Your task to perform on an android device: What's the weather going to be this weekend? Image 0: 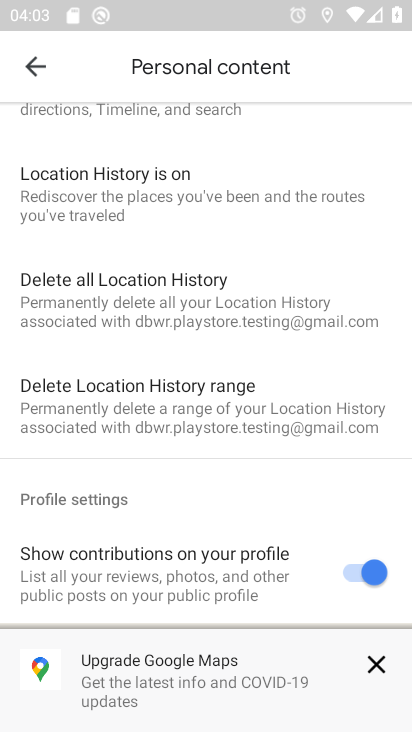
Step 0: press home button
Your task to perform on an android device: What's the weather going to be this weekend? Image 1: 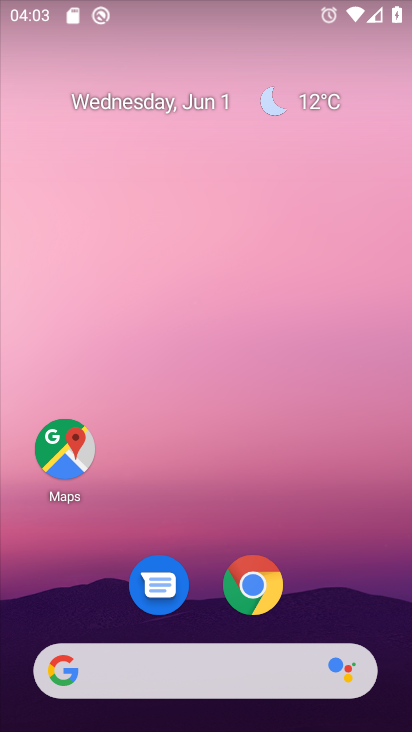
Step 1: click (318, 90)
Your task to perform on an android device: What's the weather going to be this weekend? Image 2: 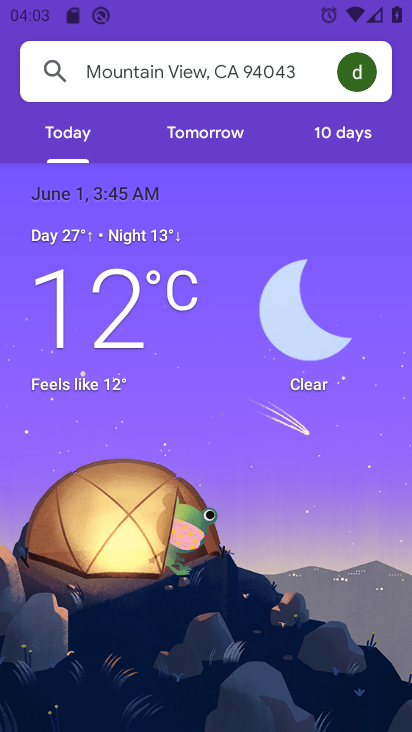
Step 2: click (334, 138)
Your task to perform on an android device: What's the weather going to be this weekend? Image 3: 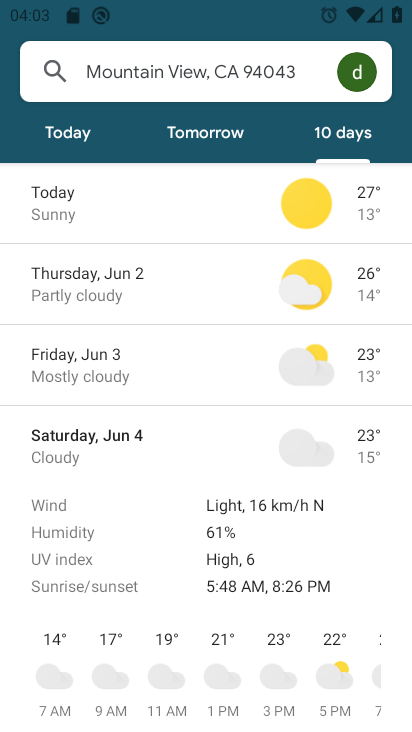
Step 3: task complete